Your task to perform on an android device: Go to Reddit.com Image 0: 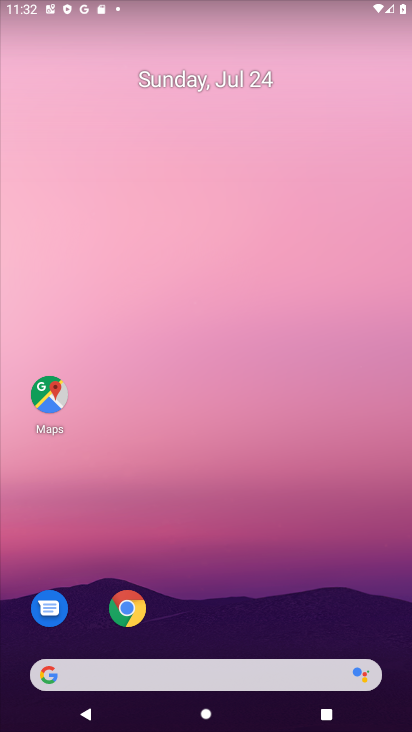
Step 0: drag from (233, 583) to (61, 41)
Your task to perform on an android device: Go to Reddit.com Image 1: 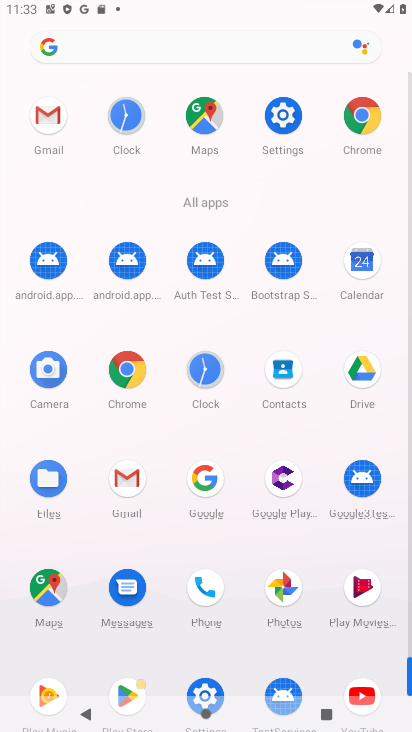
Step 1: click (367, 122)
Your task to perform on an android device: Go to Reddit.com Image 2: 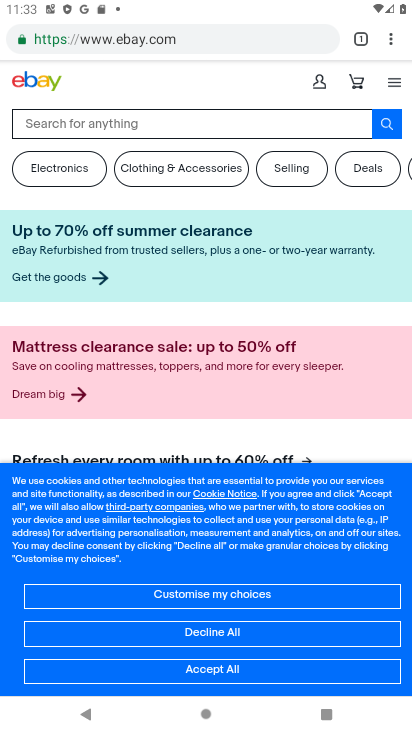
Step 2: click (225, 37)
Your task to perform on an android device: Go to Reddit.com Image 3: 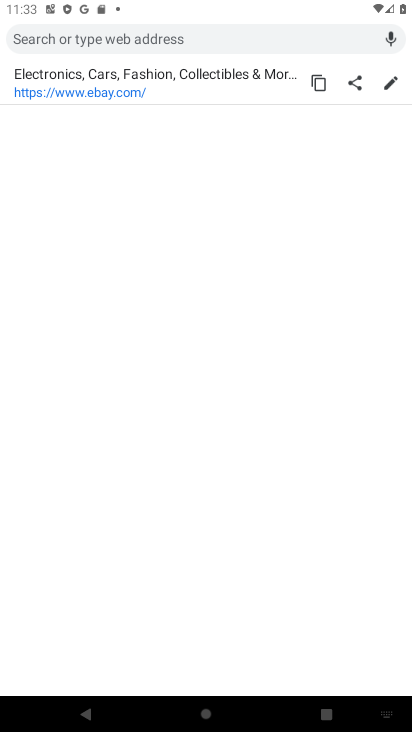
Step 3: type " Reddit.com"
Your task to perform on an android device: Go to Reddit.com Image 4: 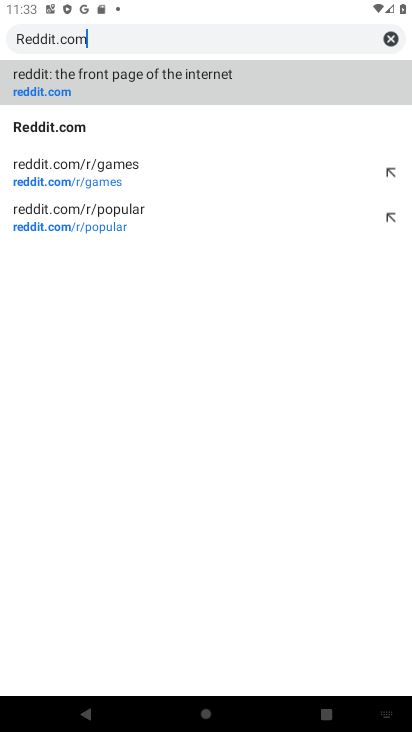
Step 4: click (51, 125)
Your task to perform on an android device: Go to Reddit.com Image 5: 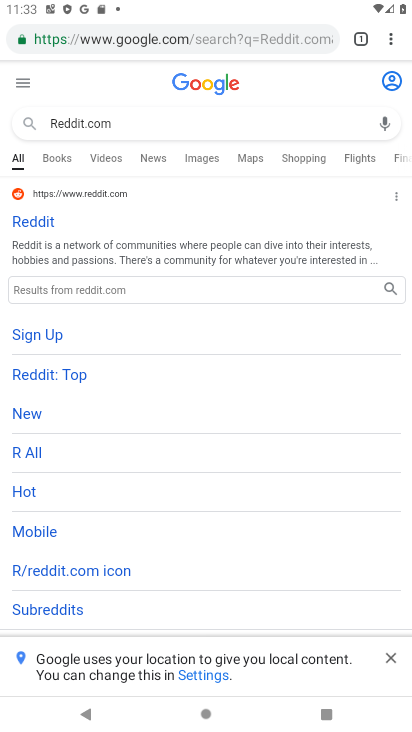
Step 5: click (40, 223)
Your task to perform on an android device: Go to Reddit.com Image 6: 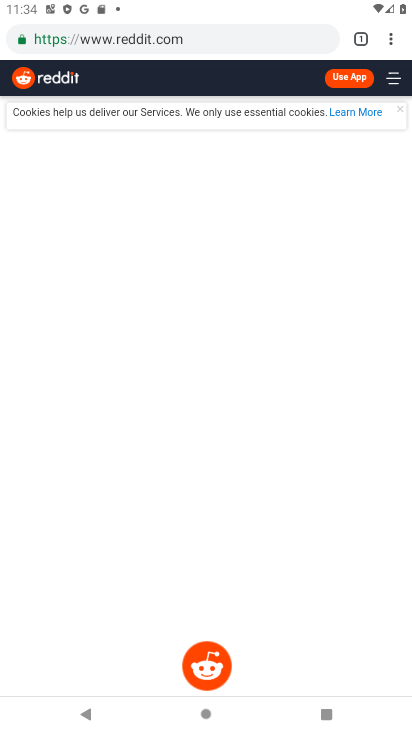
Step 6: task complete